Your task to perform on an android device: change your default location settings in chrome Image 0: 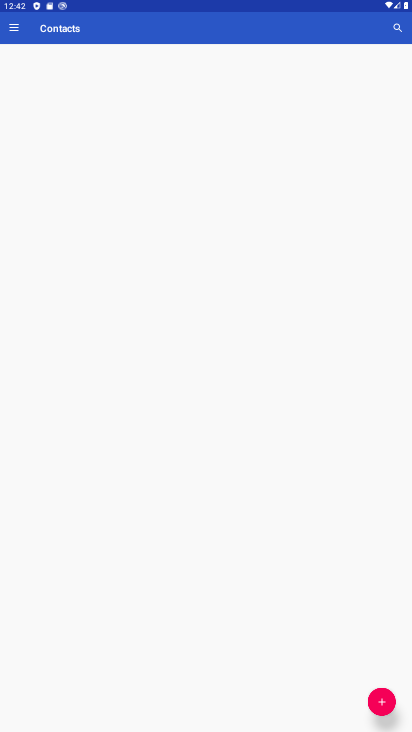
Step 0: drag from (180, 667) to (269, 183)
Your task to perform on an android device: change your default location settings in chrome Image 1: 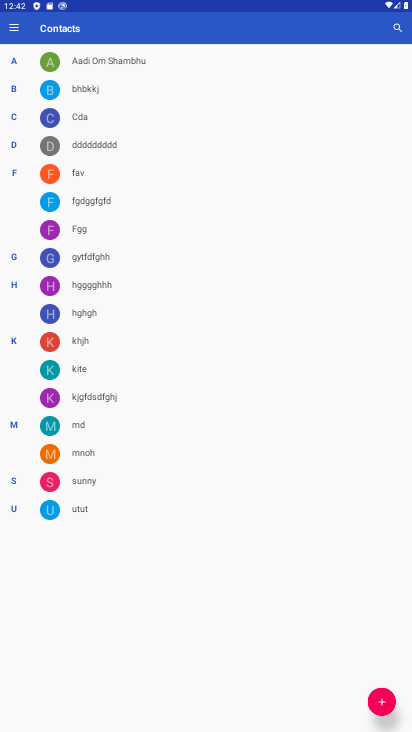
Step 1: press home button
Your task to perform on an android device: change your default location settings in chrome Image 2: 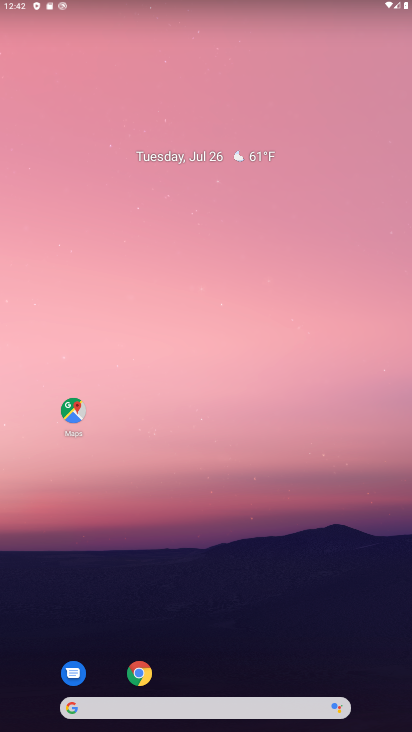
Step 2: drag from (202, 639) to (225, 201)
Your task to perform on an android device: change your default location settings in chrome Image 3: 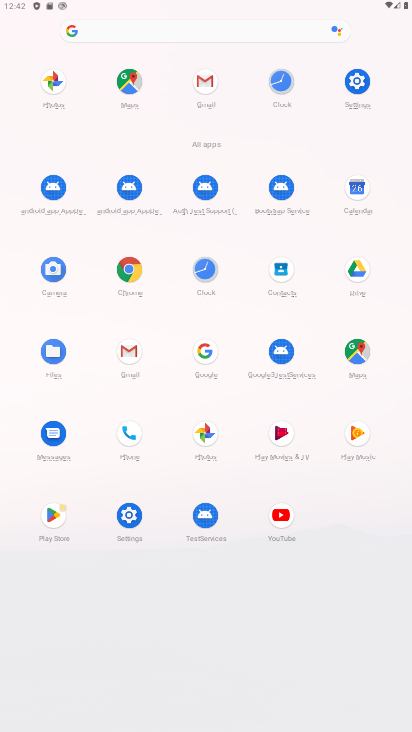
Step 3: click (131, 270)
Your task to perform on an android device: change your default location settings in chrome Image 4: 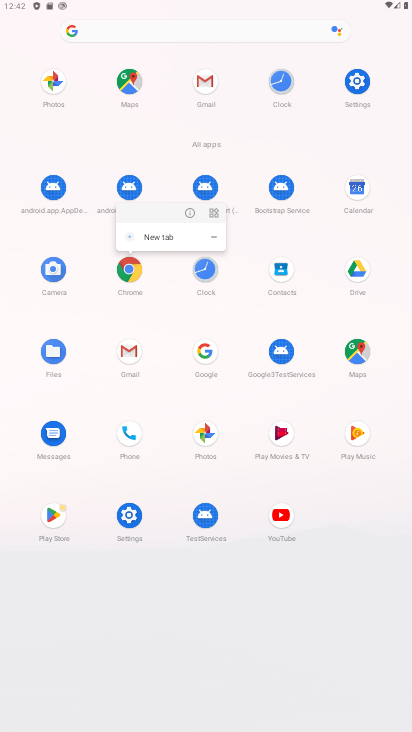
Step 4: click (189, 210)
Your task to perform on an android device: change your default location settings in chrome Image 5: 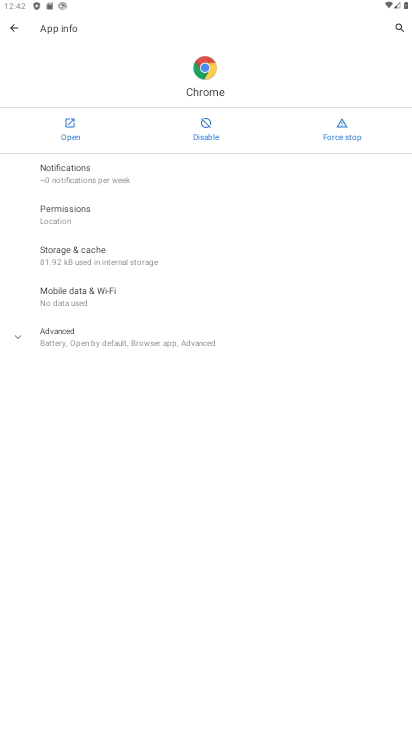
Step 5: click (60, 126)
Your task to perform on an android device: change your default location settings in chrome Image 6: 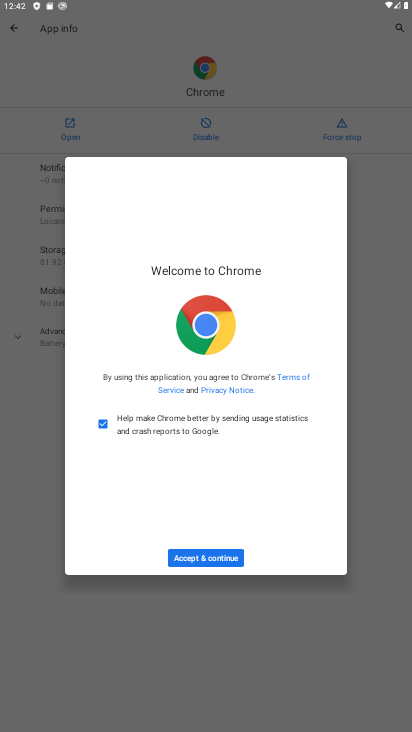
Step 6: click (220, 561)
Your task to perform on an android device: change your default location settings in chrome Image 7: 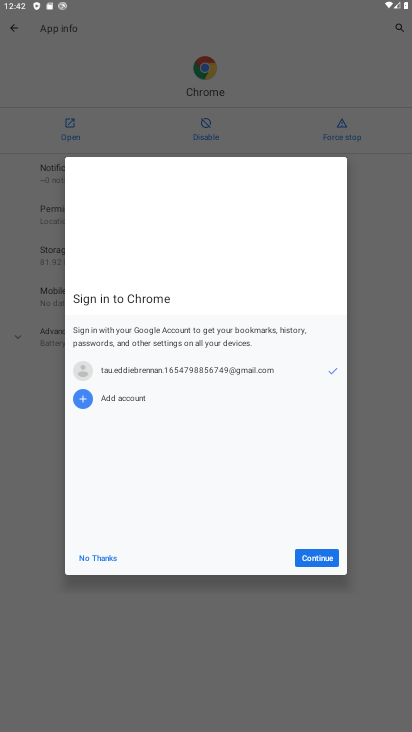
Step 7: click (307, 560)
Your task to perform on an android device: change your default location settings in chrome Image 8: 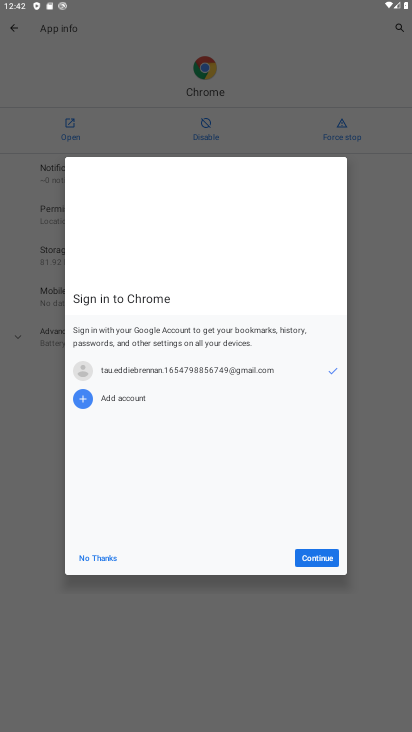
Step 8: click (307, 560)
Your task to perform on an android device: change your default location settings in chrome Image 9: 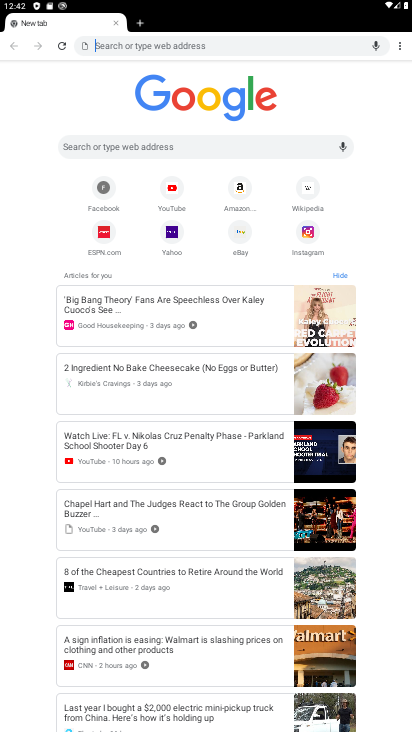
Step 9: drag from (401, 44) to (346, 212)
Your task to perform on an android device: change your default location settings in chrome Image 10: 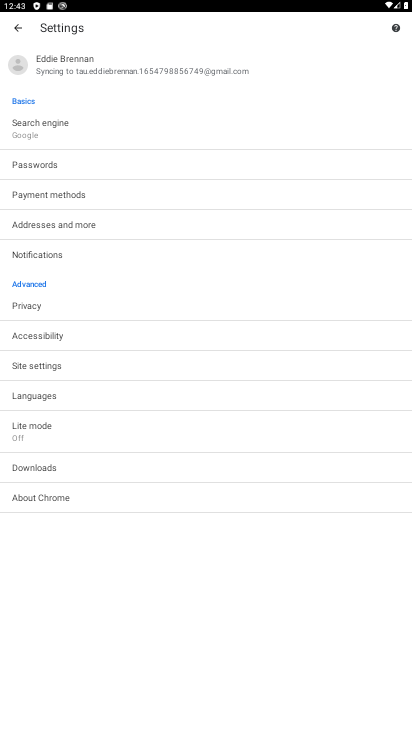
Step 10: click (58, 355)
Your task to perform on an android device: change your default location settings in chrome Image 11: 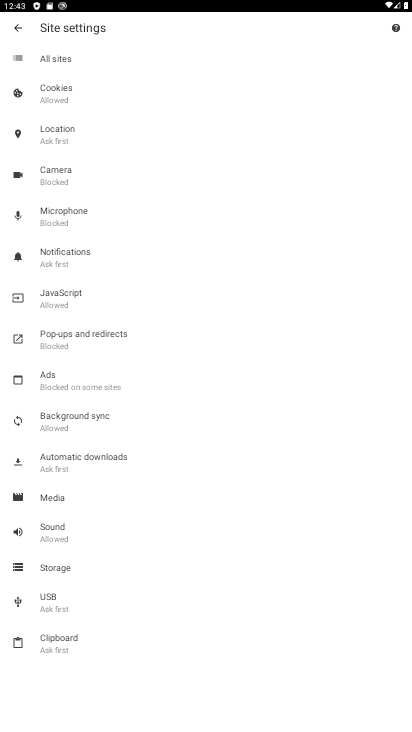
Step 11: click (114, 127)
Your task to perform on an android device: change your default location settings in chrome Image 12: 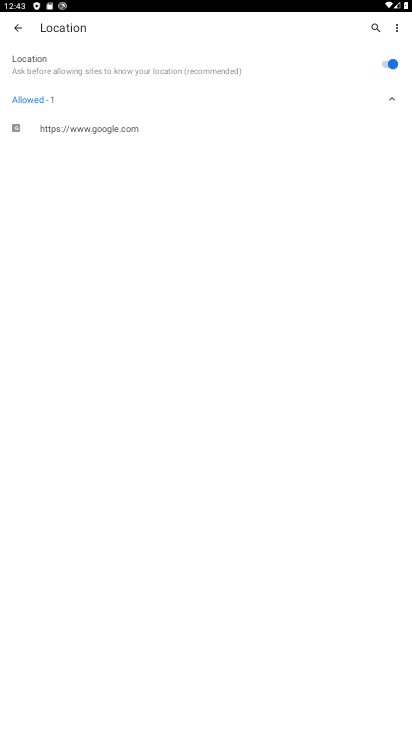
Step 12: task complete